Your task to perform on an android device: turn on sleep mode Image 0: 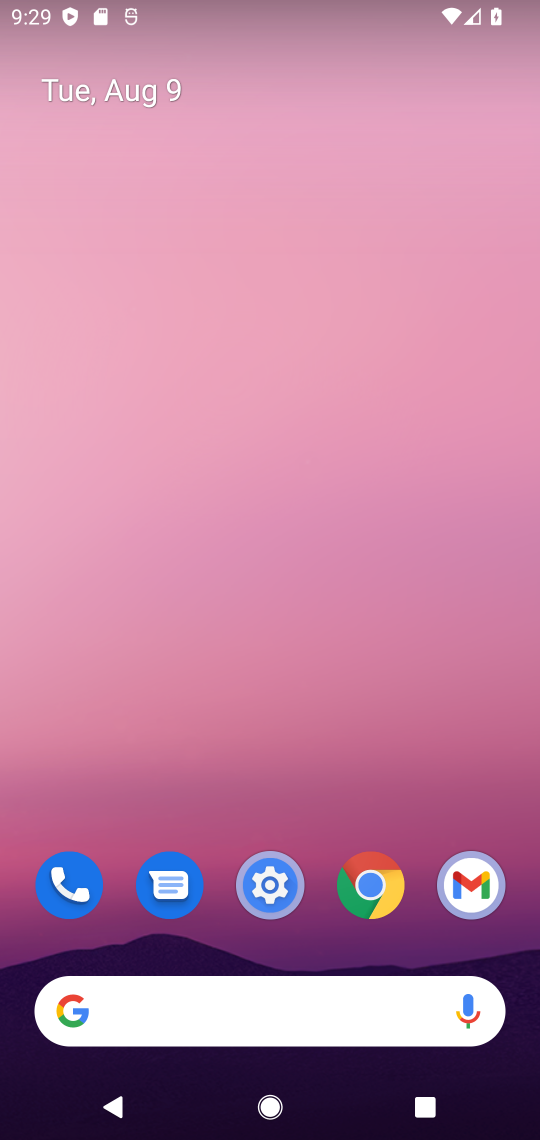
Step 0: press home button
Your task to perform on an android device: turn on sleep mode Image 1: 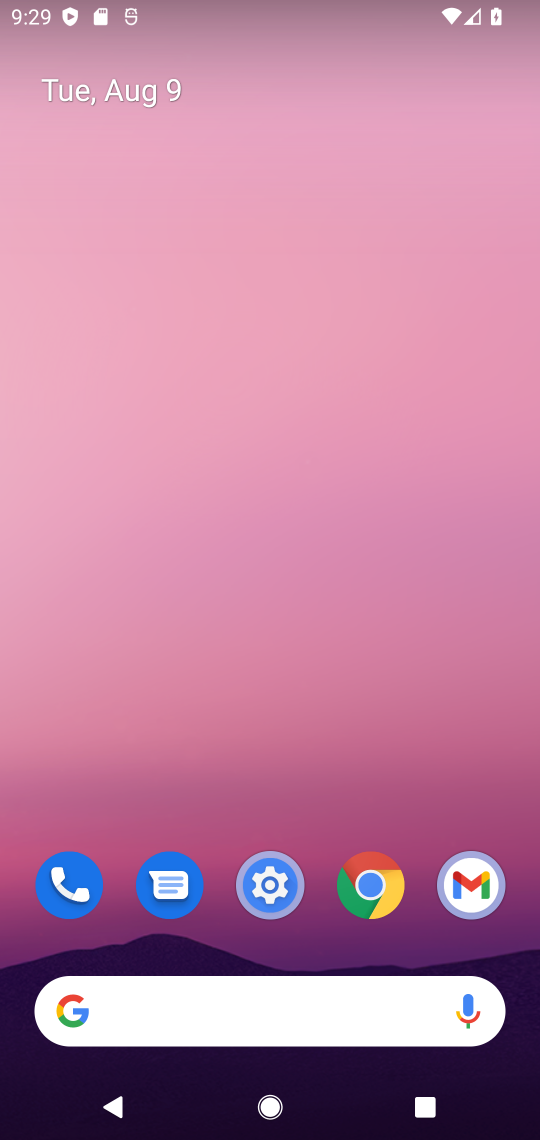
Step 1: drag from (319, 941) to (359, 152)
Your task to perform on an android device: turn on sleep mode Image 2: 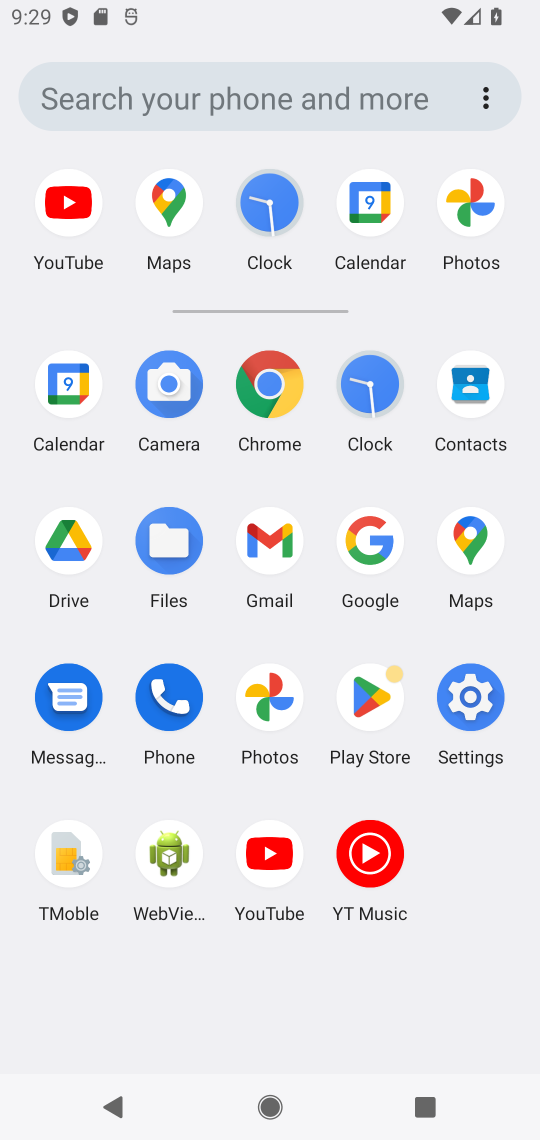
Step 2: click (469, 690)
Your task to perform on an android device: turn on sleep mode Image 3: 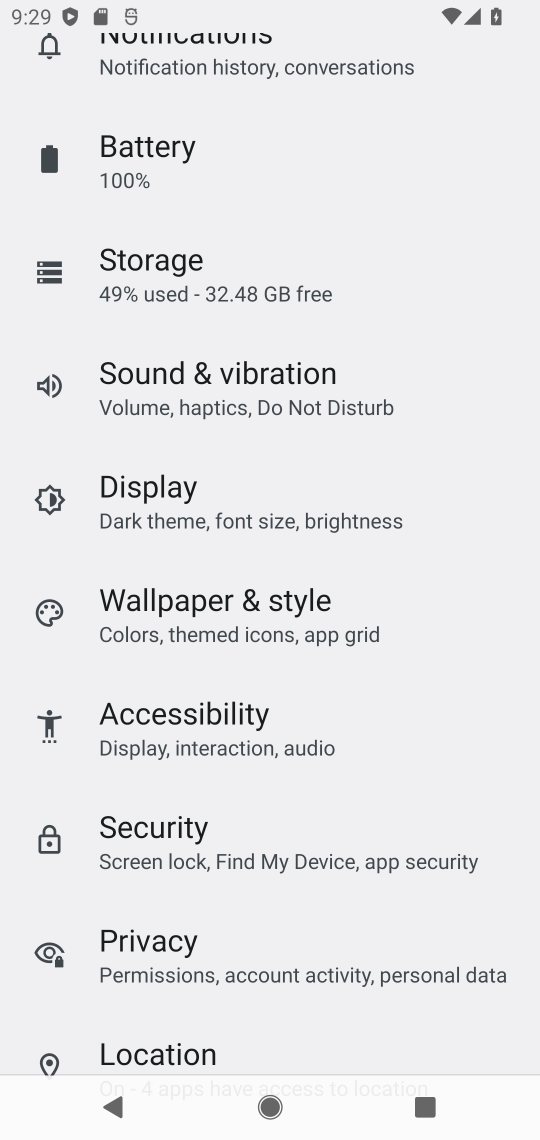
Step 3: click (217, 492)
Your task to perform on an android device: turn on sleep mode Image 4: 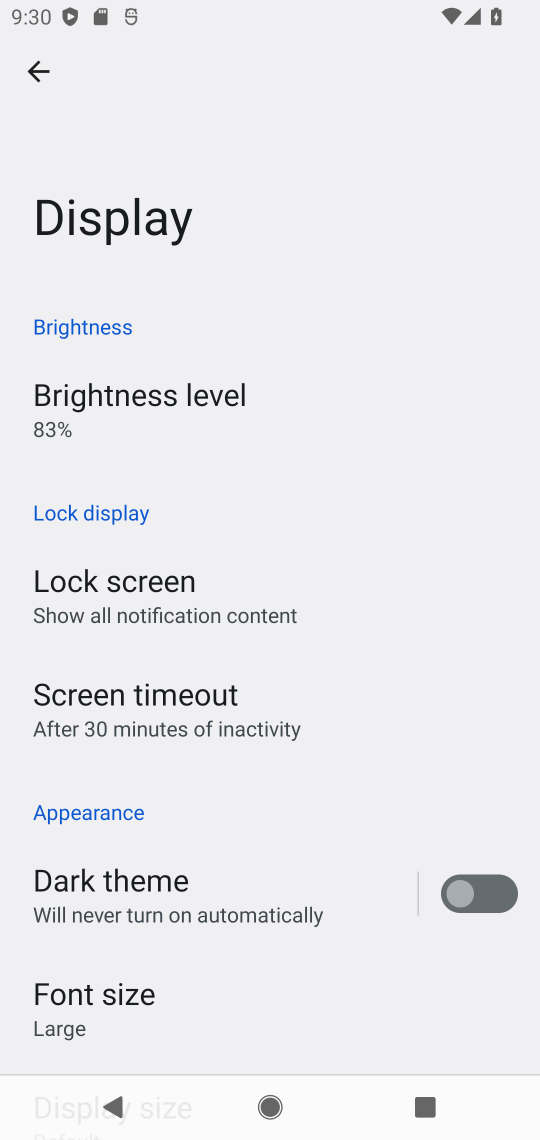
Step 4: task complete